Your task to perform on an android device: Go to Amazon Image 0: 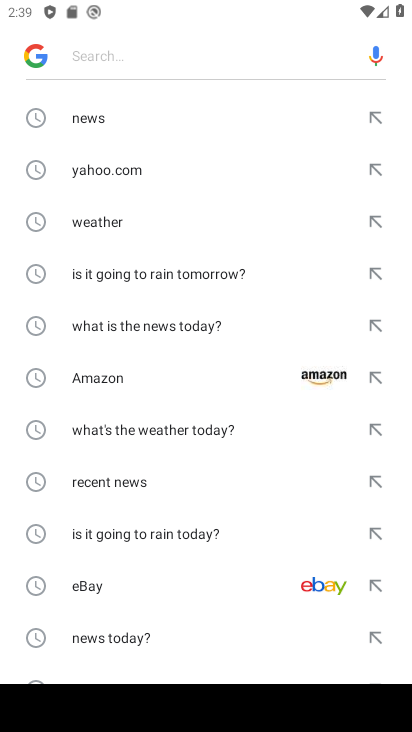
Step 0: press home button
Your task to perform on an android device: Go to Amazon Image 1: 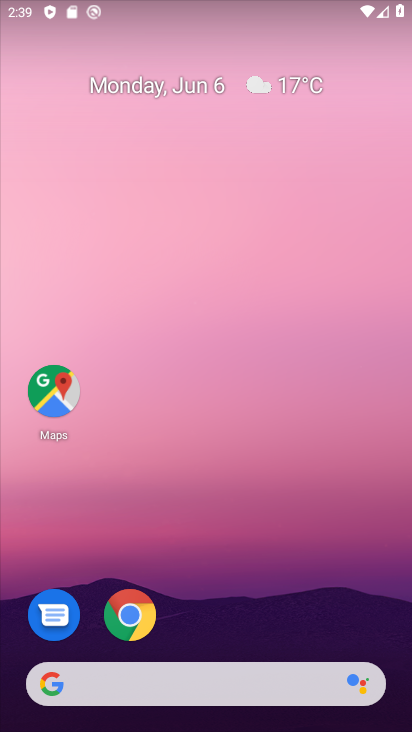
Step 1: click (147, 604)
Your task to perform on an android device: Go to Amazon Image 2: 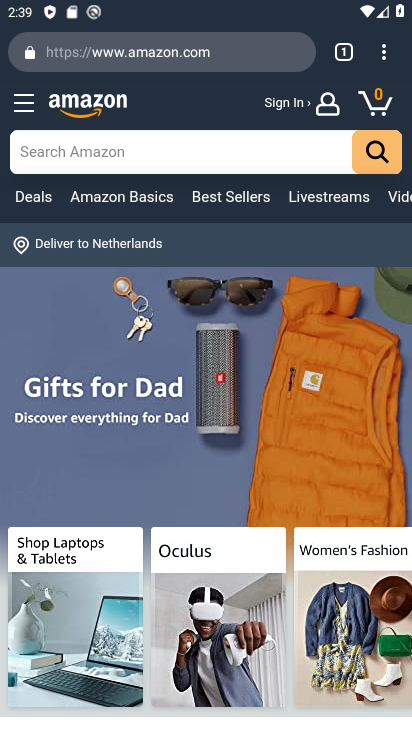
Step 2: task complete